Your task to perform on an android device: Open the calendar app, open the side menu, and click the "Day" option Image 0: 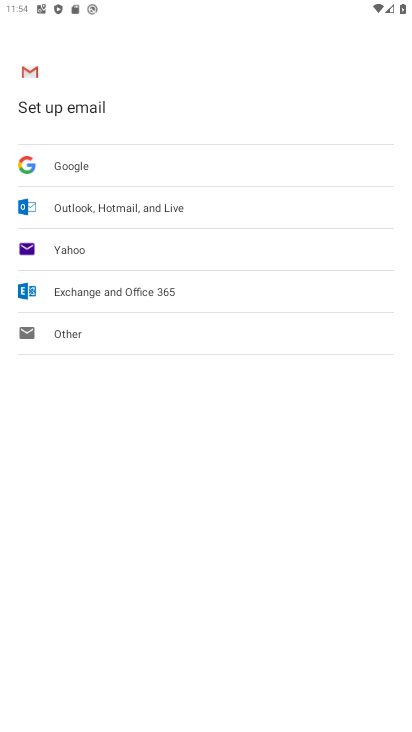
Step 0: press home button
Your task to perform on an android device: Open the calendar app, open the side menu, and click the "Day" option Image 1: 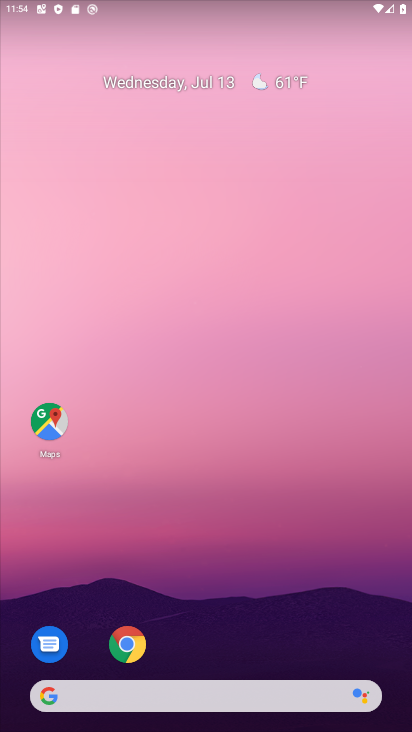
Step 1: drag from (189, 638) to (217, 93)
Your task to perform on an android device: Open the calendar app, open the side menu, and click the "Day" option Image 2: 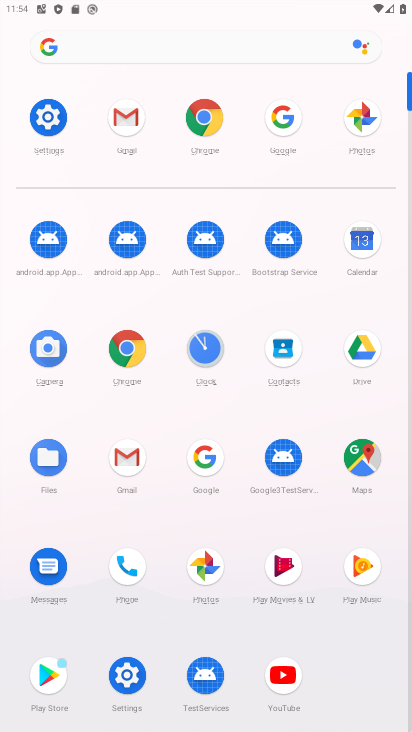
Step 2: click (363, 241)
Your task to perform on an android device: Open the calendar app, open the side menu, and click the "Day" option Image 3: 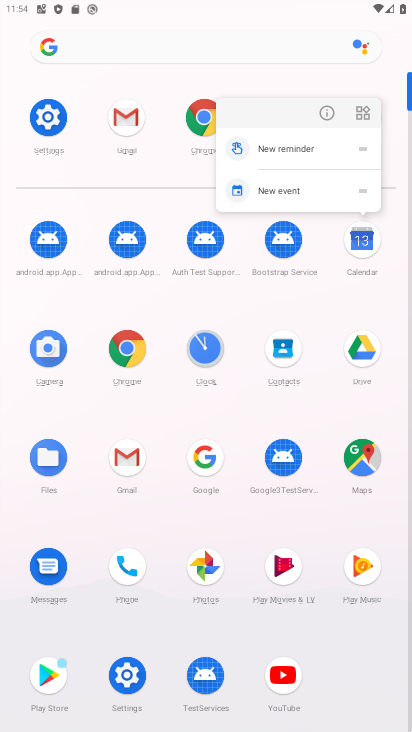
Step 3: click (216, 80)
Your task to perform on an android device: Open the calendar app, open the side menu, and click the "Day" option Image 4: 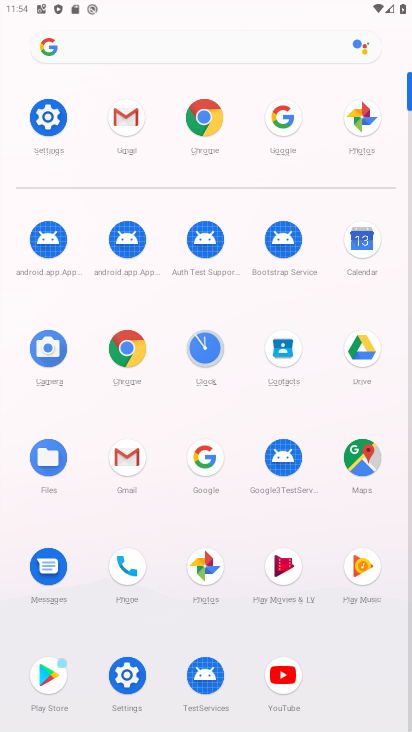
Step 4: click (365, 241)
Your task to perform on an android device: Open the calendar app, open the side menu, and click the "Day" option Image 5: 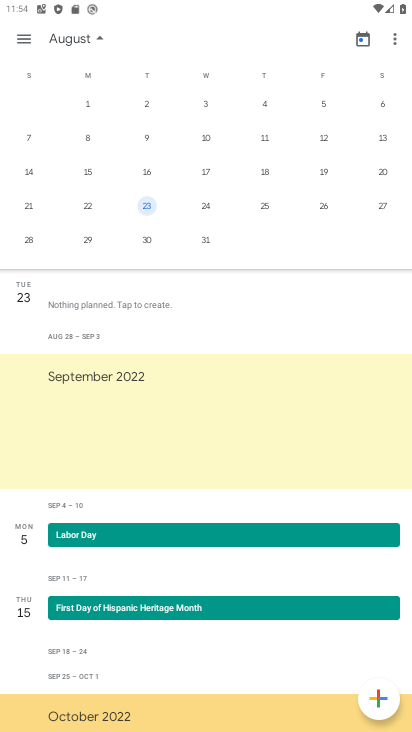
Step 5: drag from (44, 219) to (402, 210)
Your task to perform on an android device: Open the calendar app, open the side menu, and click the "Day" option Image 6: 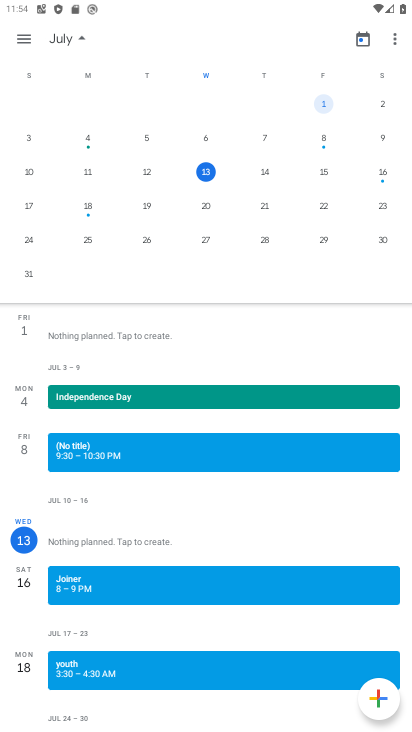
Step 6: click (25, 39)
Your task to perform on an android device: Open the calendar app, open the side menu, and click the "Day" option Image 7: 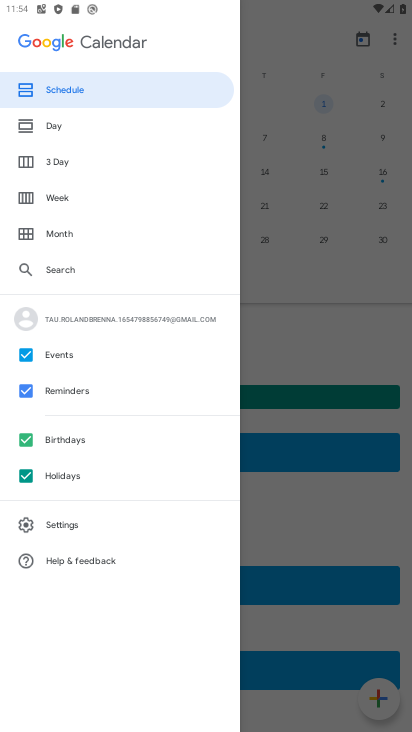
Step 7: click (60, 116)
Your task to perform on an android device: Open the calendar app, open the side menu, and click the "Day" option Image 8: 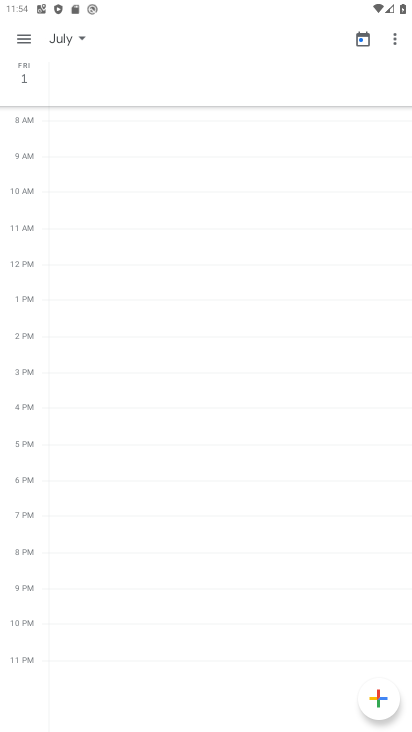
Step 8: task complete